Your task to perform on an android device: turn on bluetooth scan Image 0: 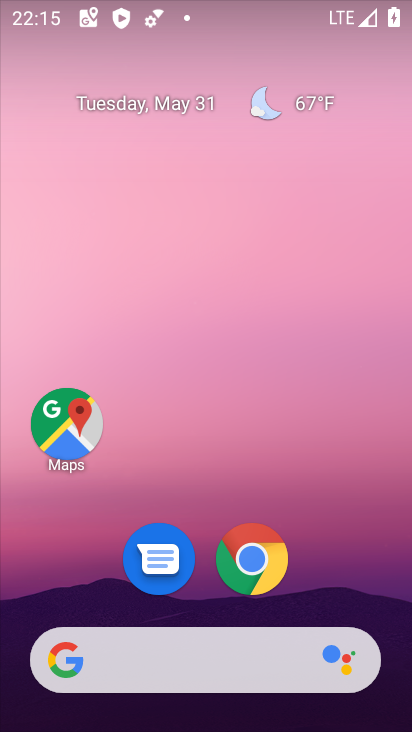
Step 0: drag from (308, 493) to (319, 72)
Your task to perform on an android device: turn on bluetooth scan Image 1: 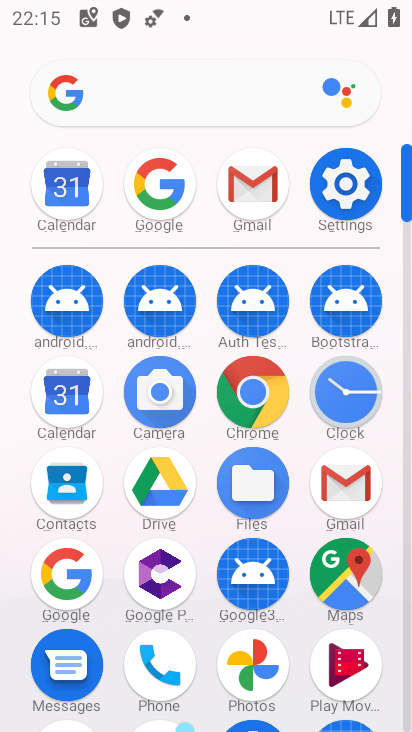
Step 1: click (347, 191)
Your task to perform on an android device: turn on bluetooth scan Image 2: 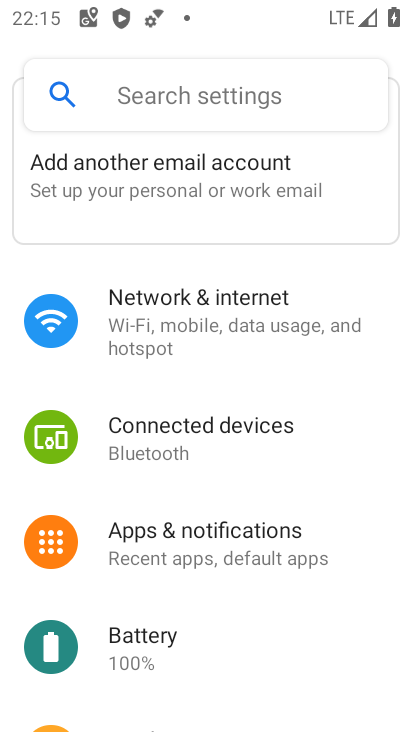
Step 2: drag from (213, 579) to (224, 204)
Your task to perform on an android device: turn on bluetooth scan Image 3: 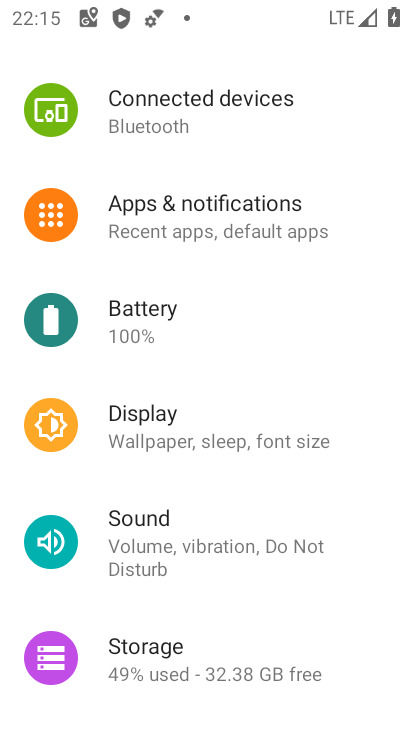
Step 3: drag from (192, 601) to (236, 186)
Your task to perform on an android device: turn on bluetooth scan Image 4: 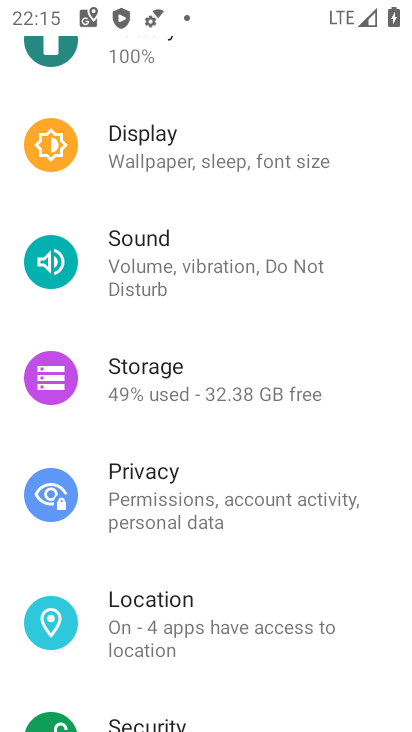
Step 4: click (178, 609)
Your task to perform on an android device: turn on bluetooth scan Image 5: 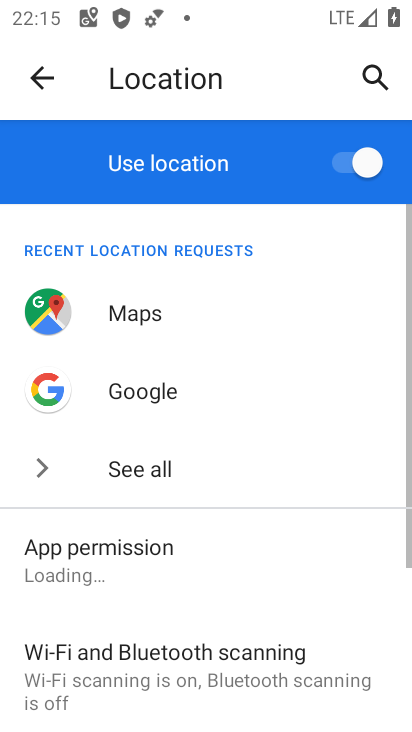
Step 5: click (166, 668)
Your task to perform on an android device: turn on bluetooth scan Image 6: 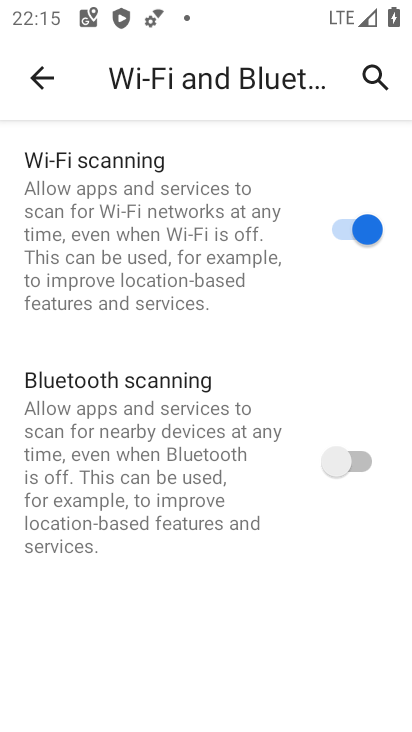
Step 6: drag from (276, 568) to (277, 266)
Your task to perform on an android device: turn on bluetooth scan Image 7: 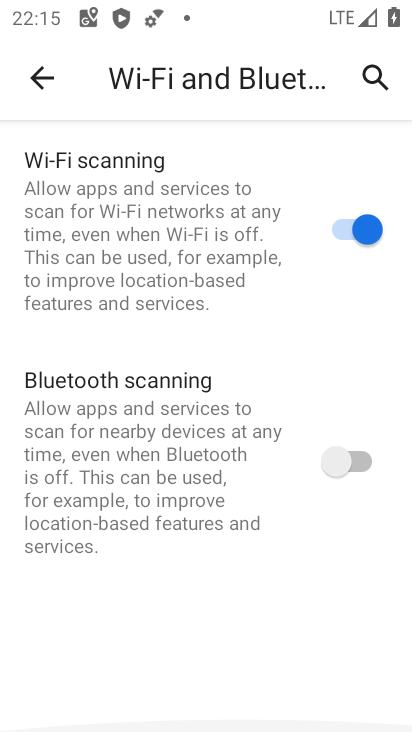
Step 7: click (343, 468)
Your task to perform on an android device: turn on bluetooth scan Image 8: 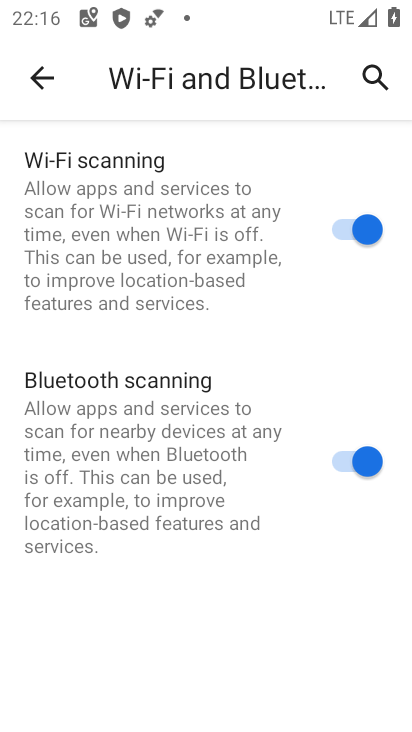
Step 8: task complete